Your task to perform on an android device: check google app version Image 0: 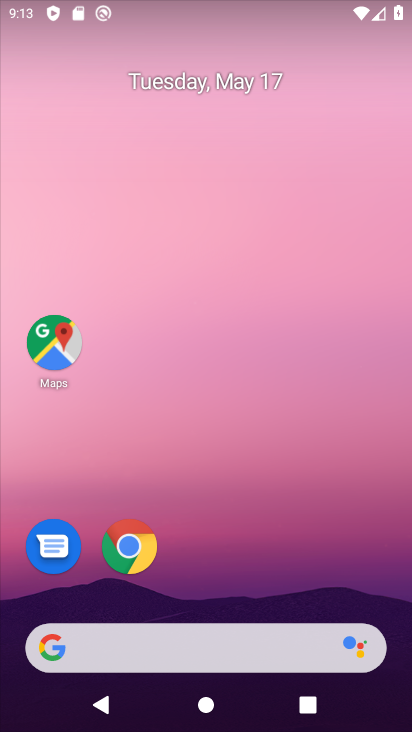
Step 0: drag from (246, 523) to (208, 220)
Your task to perform on an android device: check google app version Image 1: 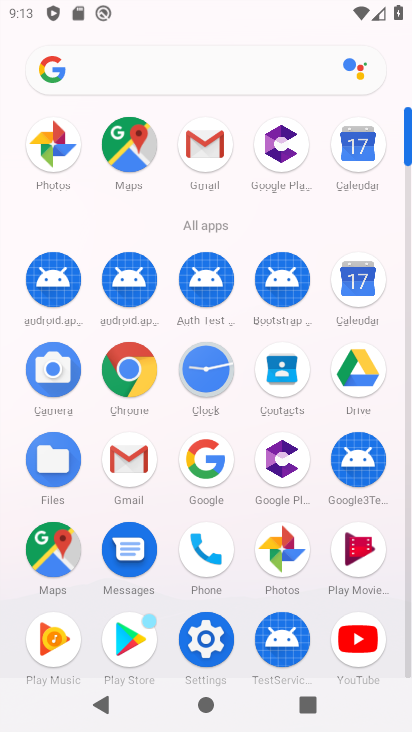
Step 1: click (191, 459)
Your task to perform on an android device: check google app version Image 2: 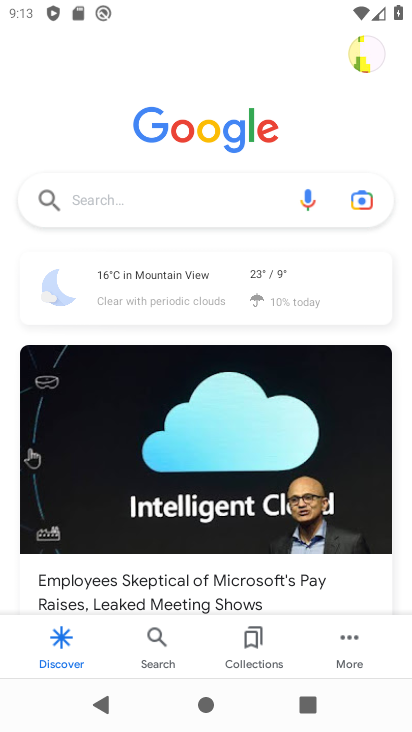
Step 2: click (346, 631)
Your task to perform on an android device: check google app version Image 3: 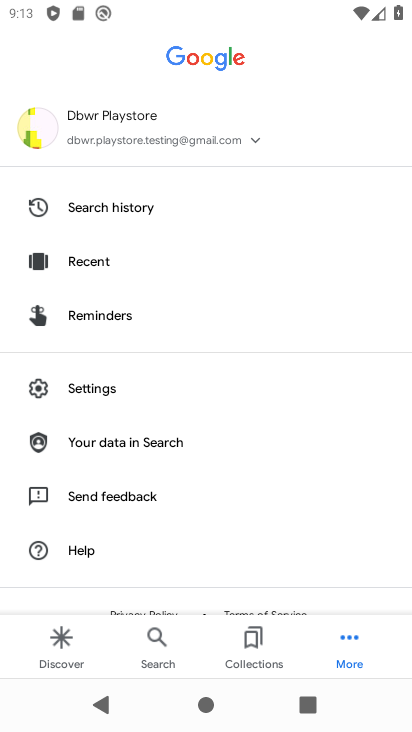
Step 3: click (83, 384)
Your task to perform on an android device: check google app version Image 4: 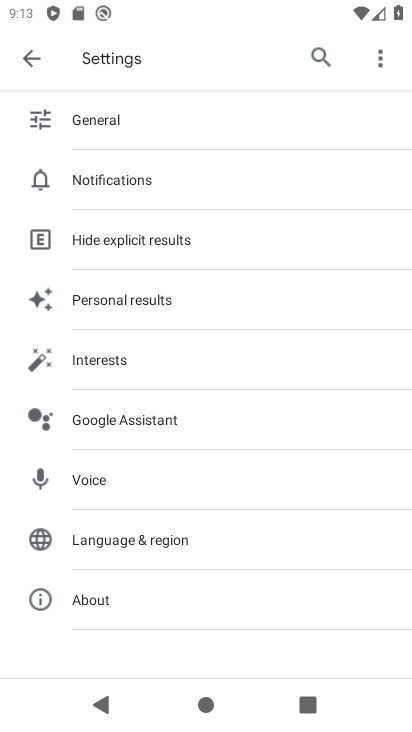
Step 4: click (90, 594)
Your task to perform on an android device: check google app version Image 5: 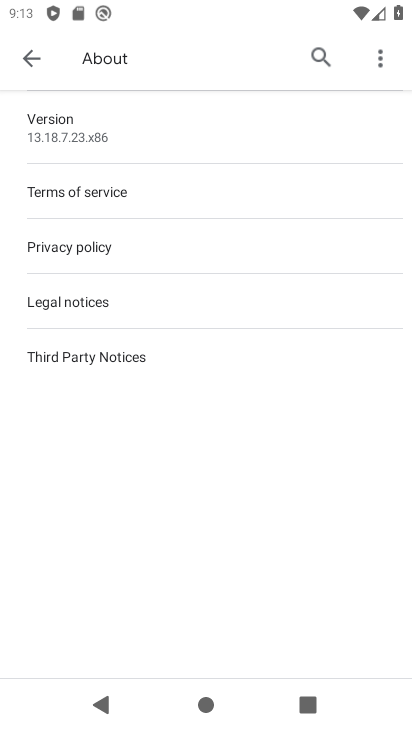
Step 5: drag from (169, 196) to (213, 601)
Your task to perform on an android device: check google app version Image 6: 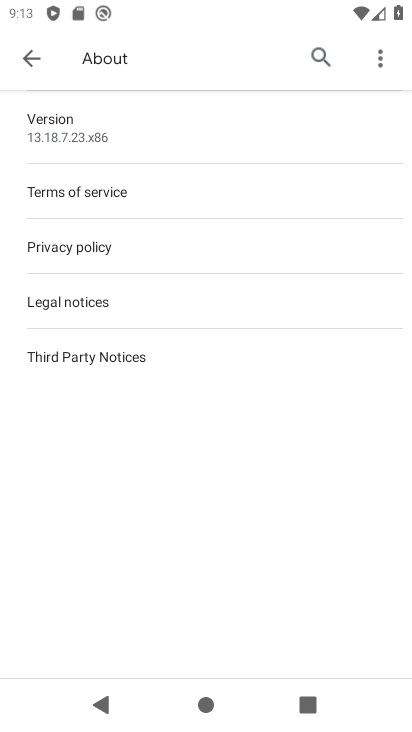
Step 6: click (64, 104)
Your task to perform on an android device: check google app version Image 7: 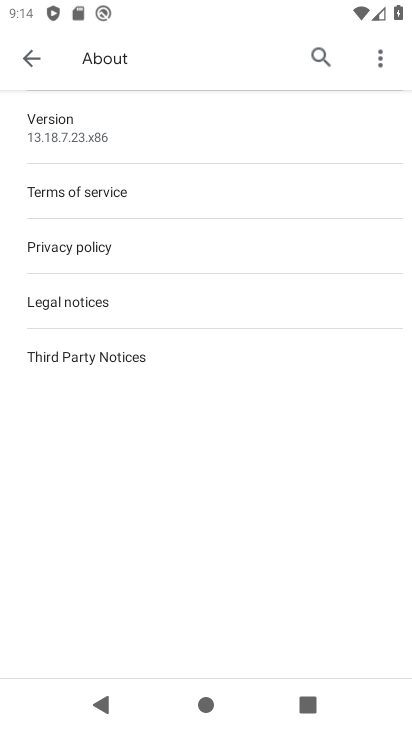
Step 7: task complete